Your task to perform on an android device: open app "Speedtest by Ookla" Image 0: 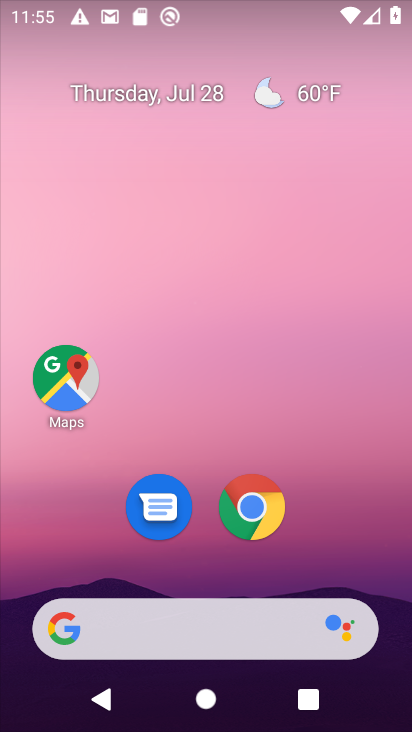
Step 0: drag from (209, 563) to (112, 4)
Your task to perform on an android device: open app "Speedtest by Ookla" Image 1: 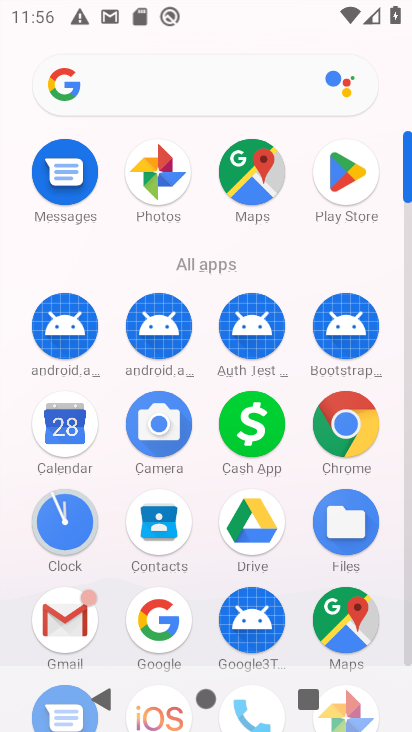
Step 1: click (349, 177)
Your task to perform on an android device: open app "Speedtest by Ookla" Image 2: 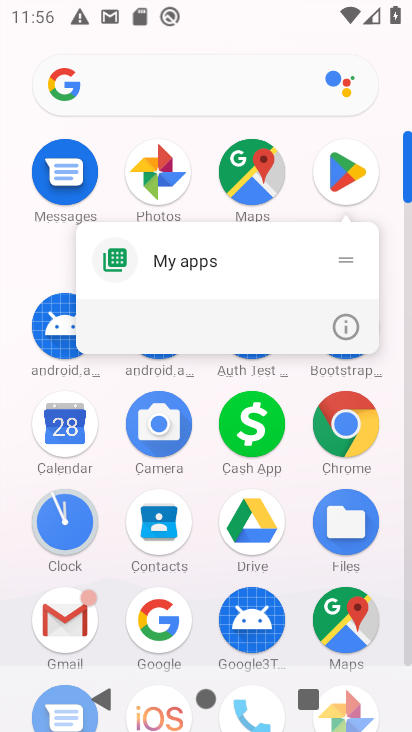
Step 2: click (349, 177)
Your task to perform on an android device: open app "Speedtest by Ookla" Image 3: 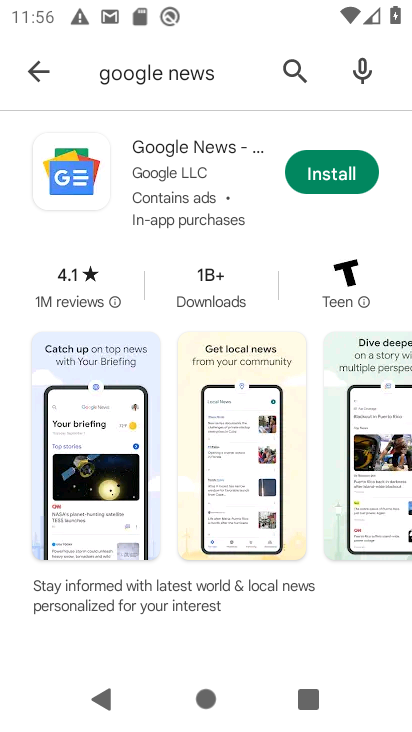
Step 3: click (165, 91)
Your task to perform on an android device: open app "Speedtest by Ookla" Image 4: 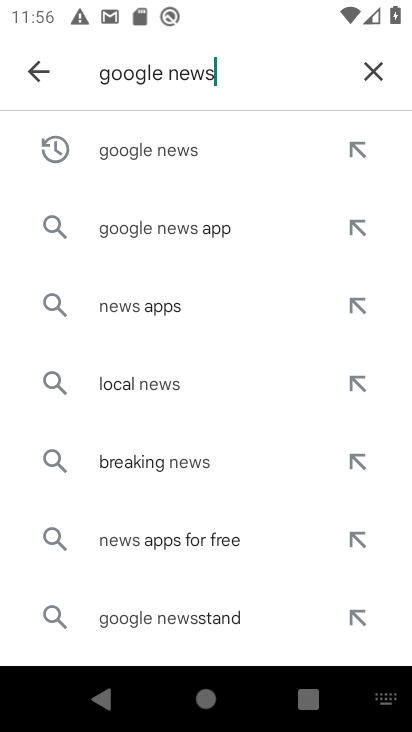
Step 4: click (372, 69)
Your task to perform on an android device: open app "Speedtest by Ookla" Image 5: 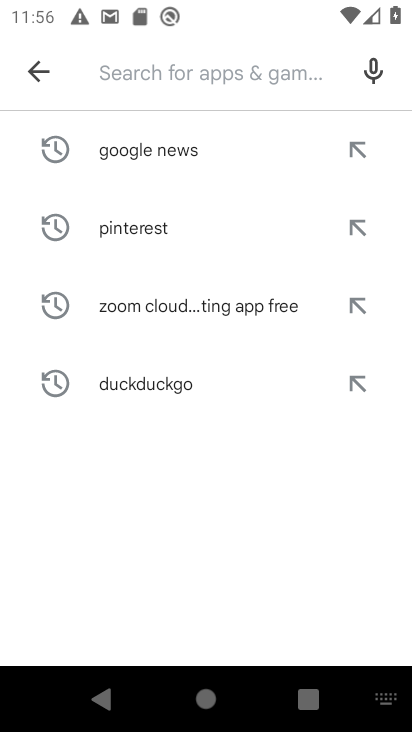
Step 5: type "speedtest by Ookla"
Your task to perform on an android device: open app "Speedtest by Ookla" Image 6: 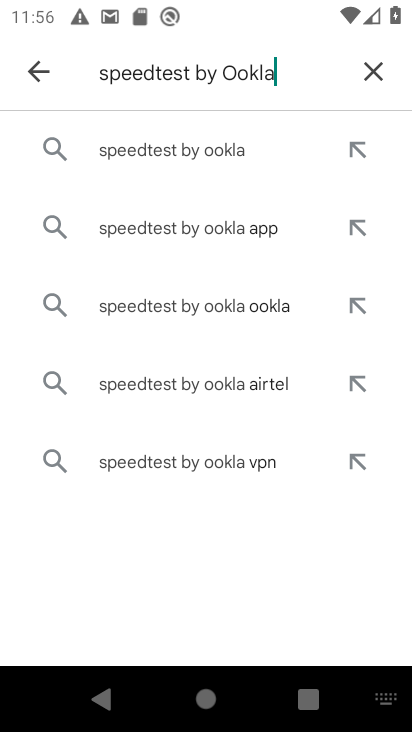
Step 6: click (185, 132)
Your task to perform on an android device: open app "Speedtest by Ookla" Image 7: 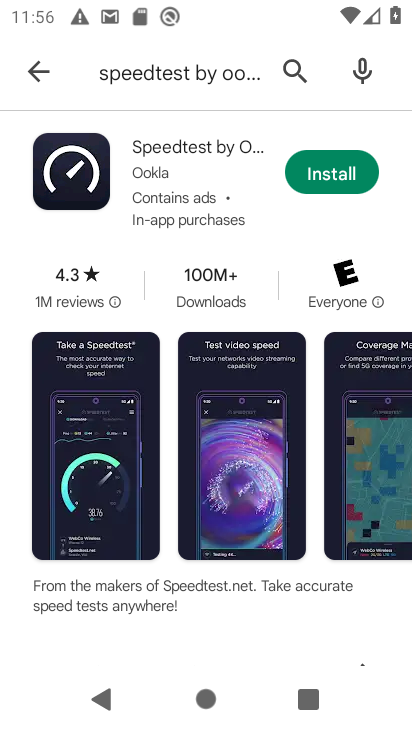
Step 7: task complete